Your task to perform on an android device: toggle translation in the chrome app Image 0: 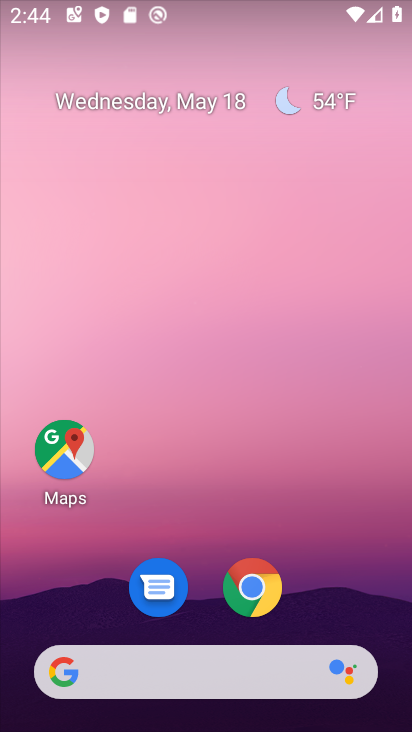
Step 0: click (235, 19)
Your task to perform on an android device: toggle translation in the chrome app Image 1: 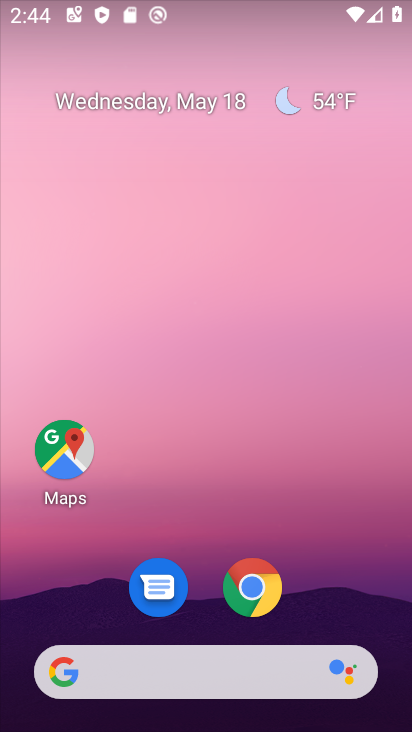
Step 1: drag from (204, 636) to (230, 107)
Your task to perform on an android device: toggle translation in the chrome app Image 2: 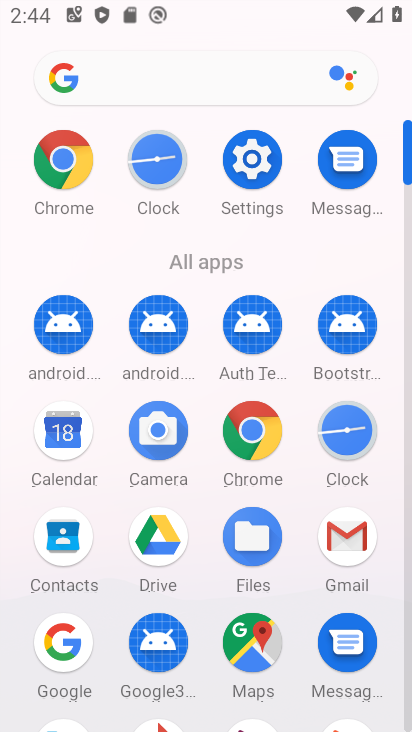
Step 2: click (257, 421)
Your task to perform on an android device: toggle translation in the chrome app Image 3: 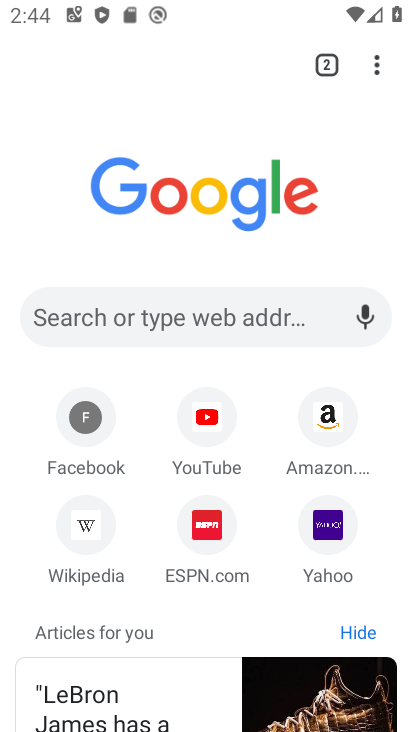
Step 3: click (375, 69)
Your task to perform on an android device: toggle translation in the chrome app Image 4: 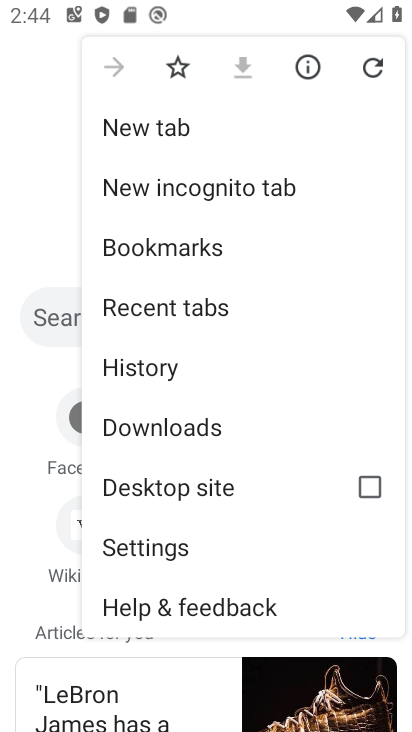
Step 4: drag from (221, 531) to (246, 169)
Your task to perform on an android device: toggle translation in the chrome app Image 5: 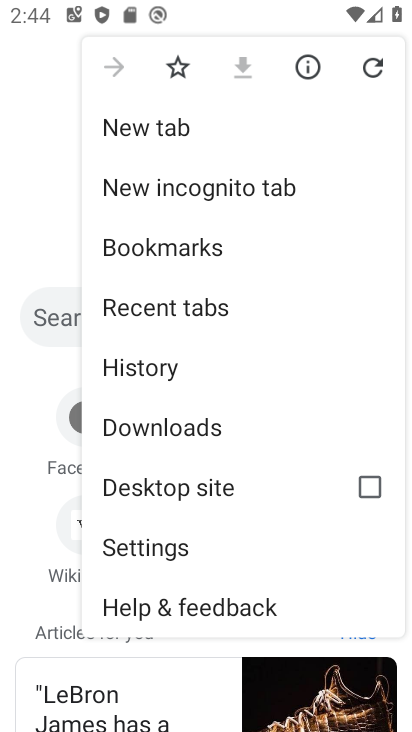
Step 5: click (172, 541)
Your task to perform on an android device: toggle translation in the chrome app Image 6: 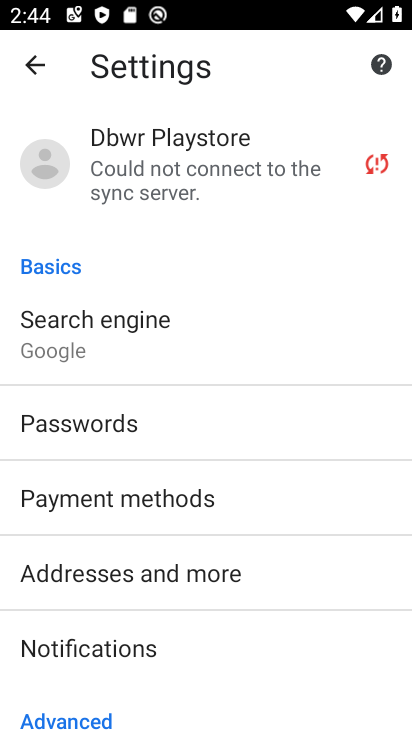
Step 6: drag from (172, 604) to (266, 21)
Your task to perform on an android device: toggle translation in the chrome app Image 7: 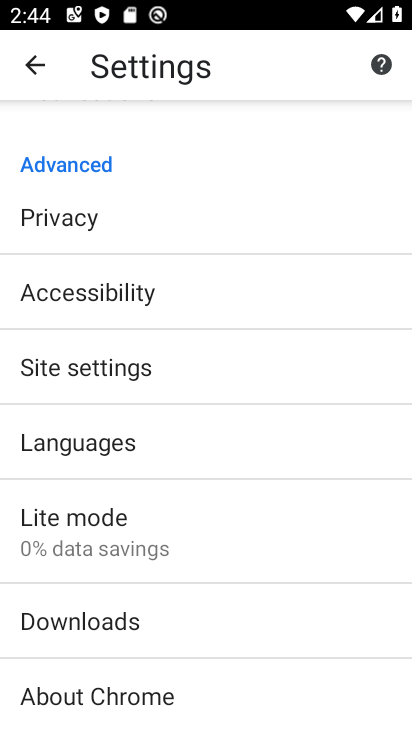
Step 7: click (104, 436)
Your task to perform on an android device: toggle translation in the chrome app Image 8: 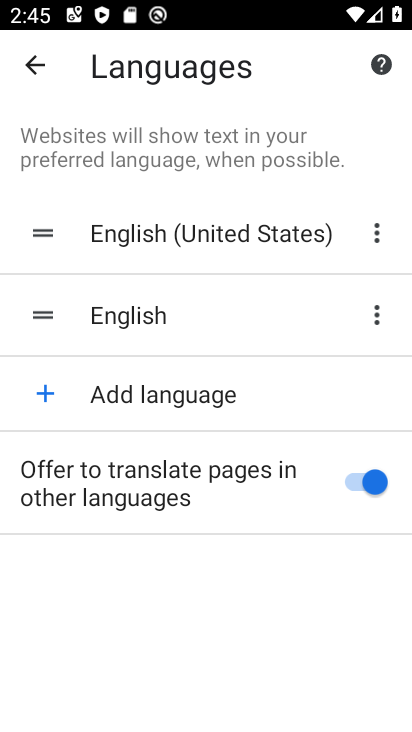
Step 8: click (356, 489)
Your task to perform on an android device: toggle translation in the chrome app Image 9: 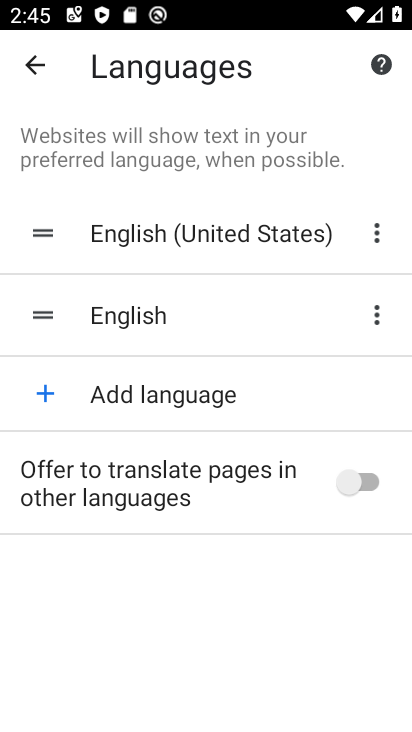
Step 9: drag from (253, 552) to (296, 288)
Your task to perform on an android device: toggle translation in the chrome app Image 10: 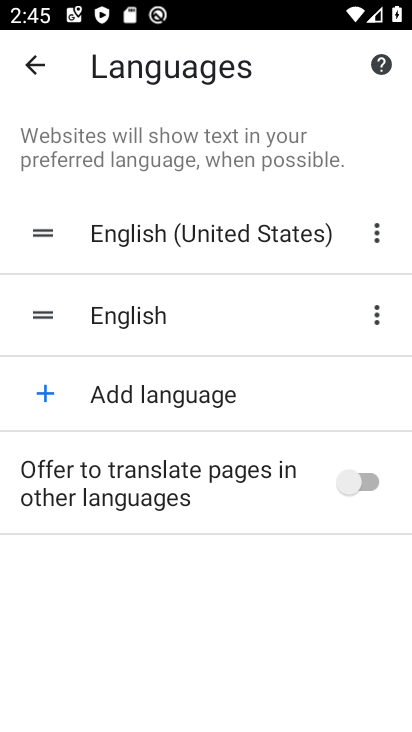
Step 10: click (357, 483)
Your task to perform on an android device: toggle translation in the chrome app Image 11: 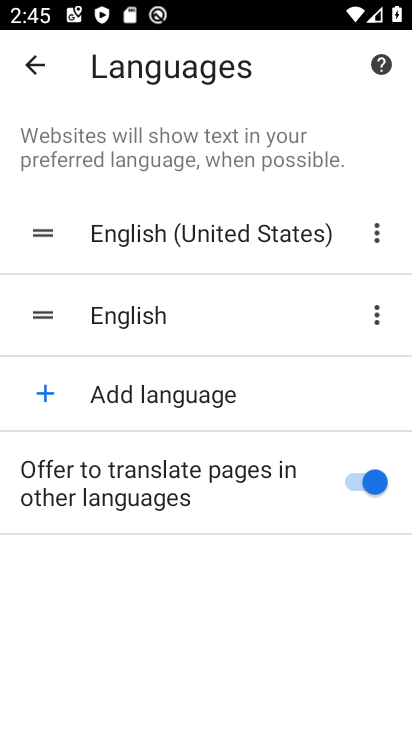
Step 11: task complete